Your task to perform on an android device: turn on the 12-hour format for clock Image 0: 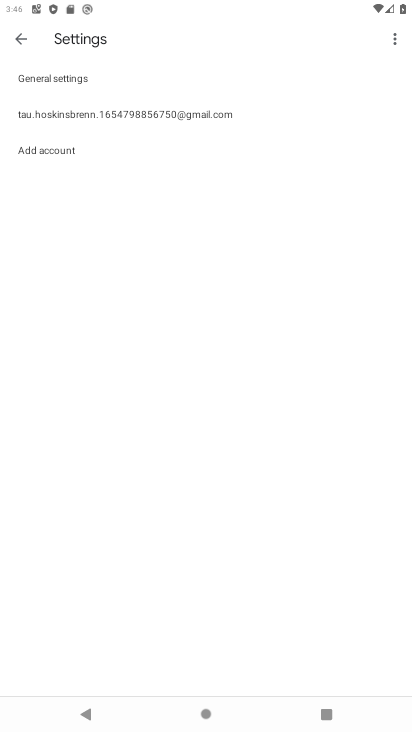
Step 0: press home button
Your task to perform on an android device: turn on the 12-hour format for clock Image 1: 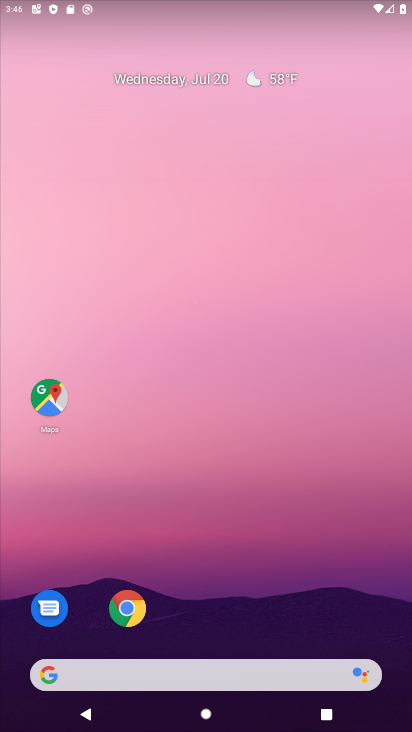
Step 1: drag from (291, 609) to (284, 326)
Your task to perform on an android device: turn on the 12-hour format for clock Image 2: 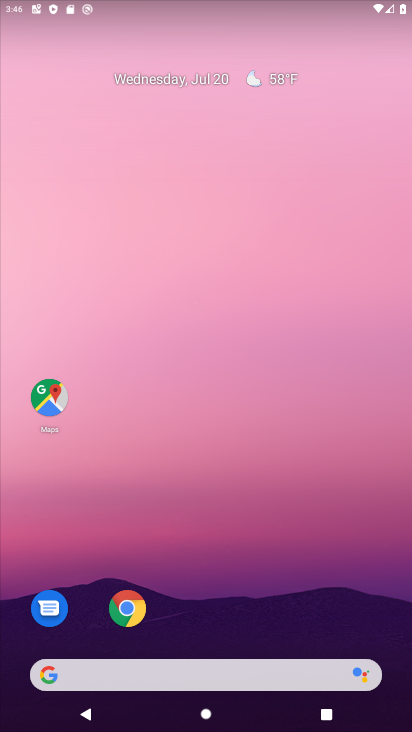
Step 2: drag from (270, 634) to (213, 127)
Your task to perform on an android device: turn on the 12-hour format for clock Image 3: 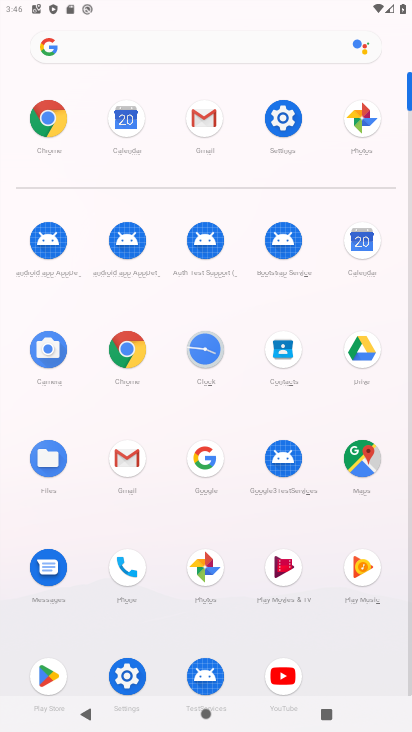
Step 3: click (209, 375)
Your task to perform on an android device: turn on the 12-hour format for clock Image 4: 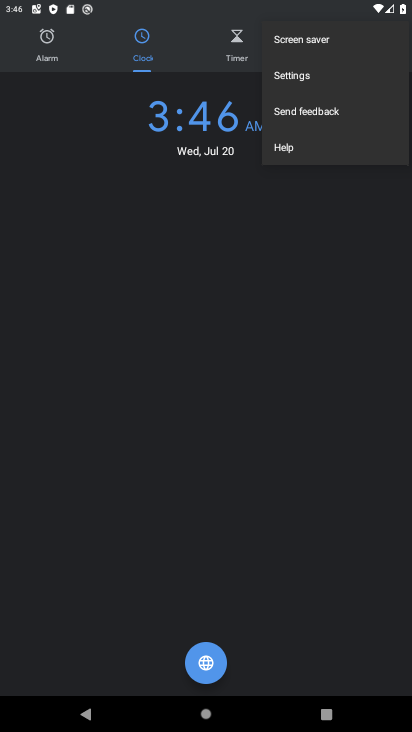
Step 4: click (117, 538)
Your task to perform on an android device: turn on the 12-hour format for clock Image 5: 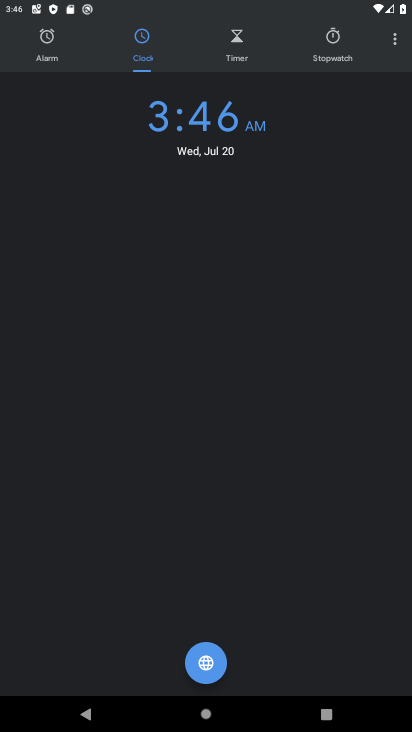
Step 5: click (387, 45)
Your task to perform on an android device: turn on the 12-hour format for clock Image 6: 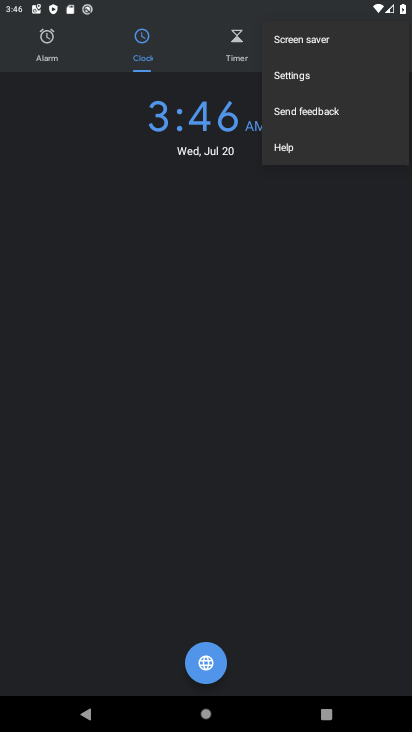
Step 6: click (285, 76)
Your task to perform on an android device: turn on the 12-hour format for clock Image 7: 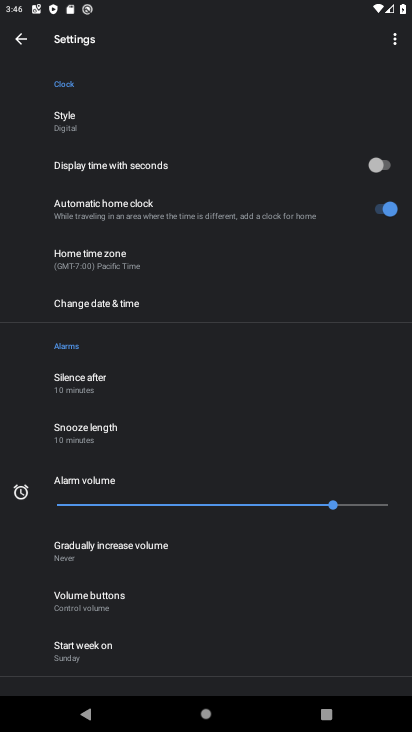
Step 7: task complete